Your task to perform on an android device: Go to Google Image 0: 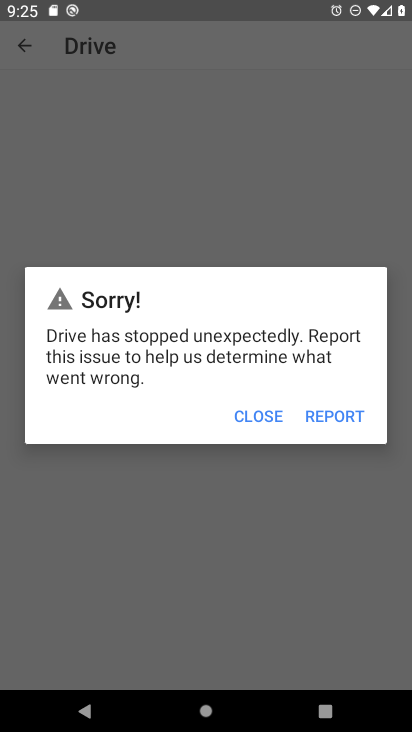
Step 0: press home button
Your task to perform on an android device: Go to Google Image 1: 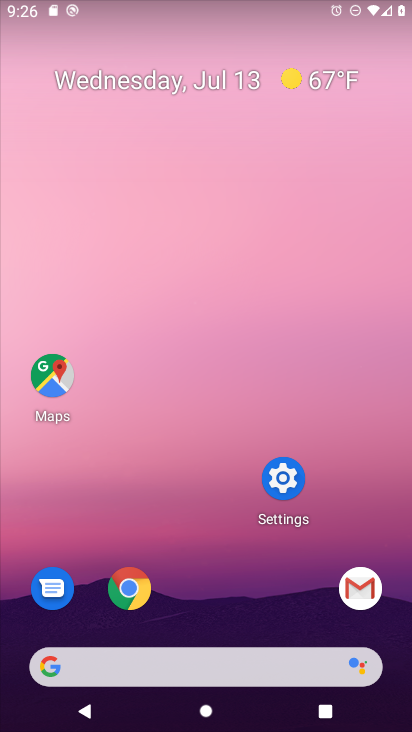
Step 1: click (99, 673)
Your task to perform on an android device: Go to Google Image 2: 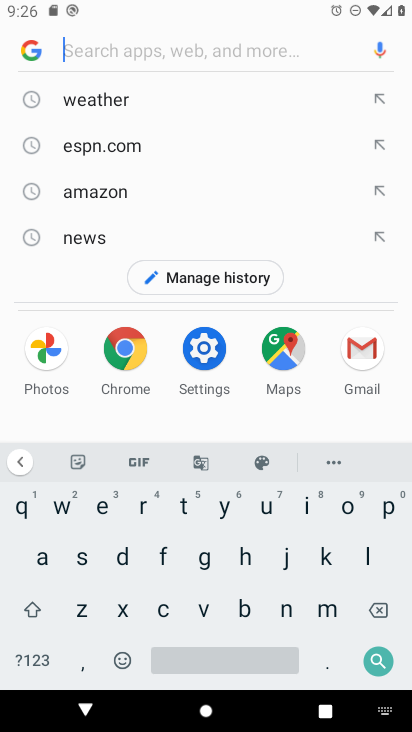
Step 2: click (30, 58)
Your task to perform on an android device: Go to Google Image 3: 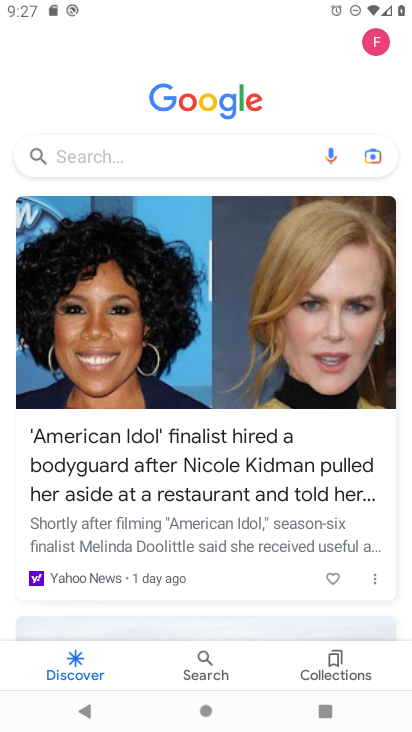
Step 3: task complete